Your task to perform on an android device: stop showing notifications on the lock screen Image 0: 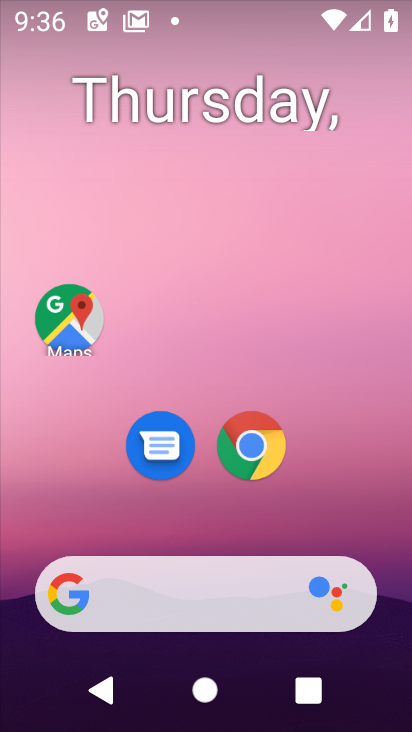
Step 0: click (68, 332)
Your task to perform on an android device: stop showing notifications on the lock screen Image 1: 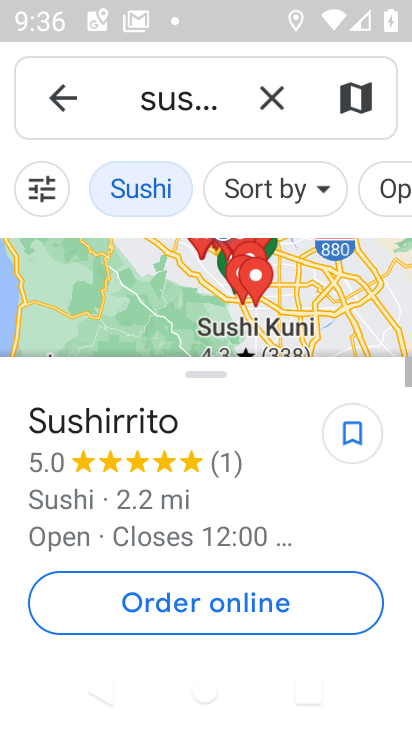
Step 1: click (268, 101)
Your task to perform on an android device: stop showing notifications on the lock screen Image 2: 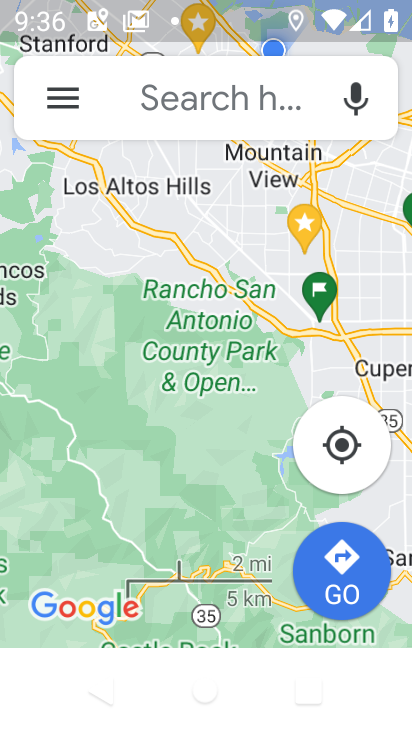
Step 2: click (64, 86)
Your task to perform on an android device: stop showing notifications on the lock screen Image 3: 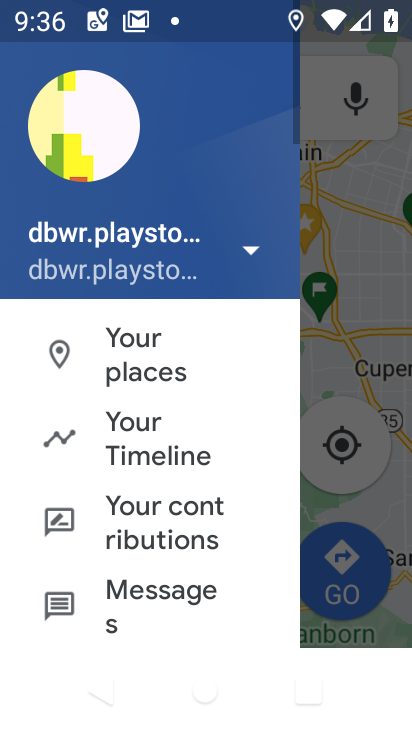
Step 3: click (144, 445)
Your task to perform on an android device: stop showing notifications on the lock screen Image 4: 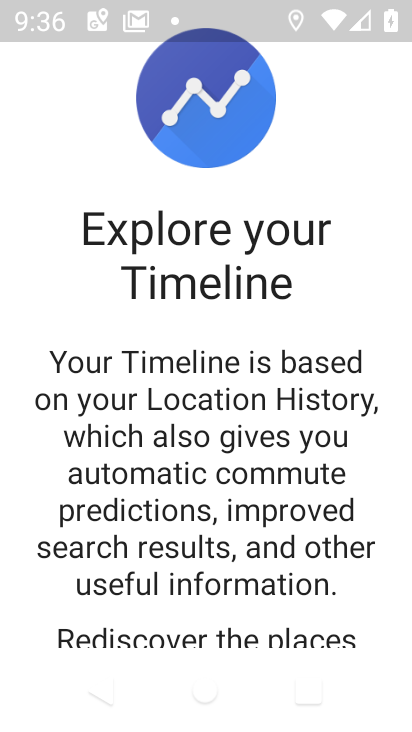
Step 4: drag from (272, 633) to (312, 222)
Your task to perform on an android device: stop showing notifications on the lock screen Image 5: 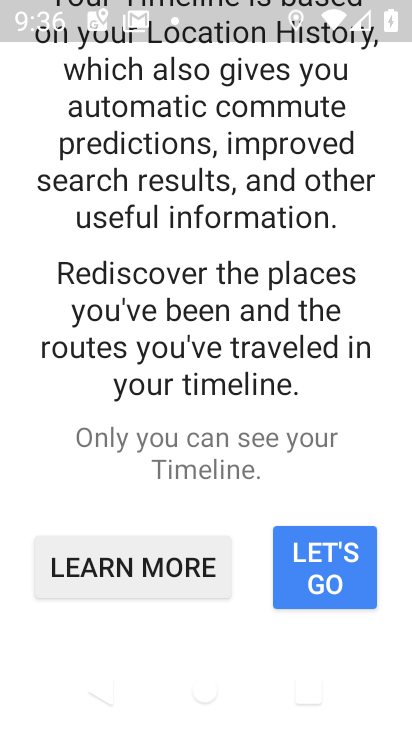
Step 5: click (322, 581)
Your task to perform on an android device: stop showing notifications on the lock screen Image 6: 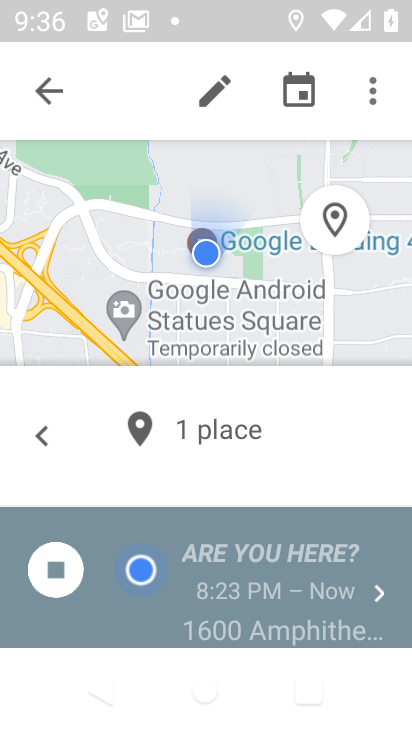
Step 6: task complete